Your task to perform on an android device: turn off notifications settings in the gmail app Image 0: 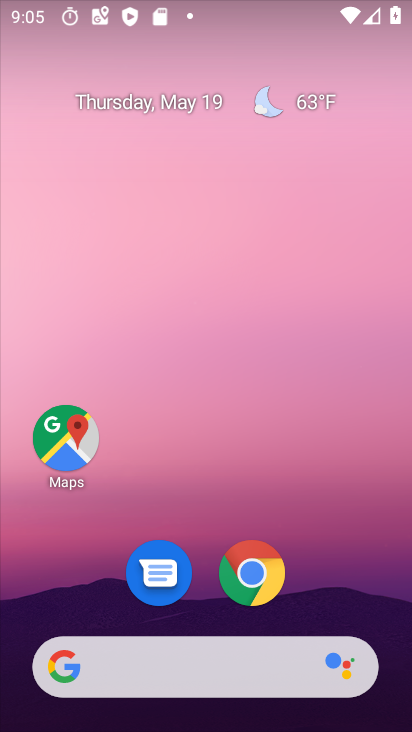
Step 0: drag from (382, 636) to (407, 333)
Your task to perform on an android device: turn off notifications settings in the gmail app Image 1: 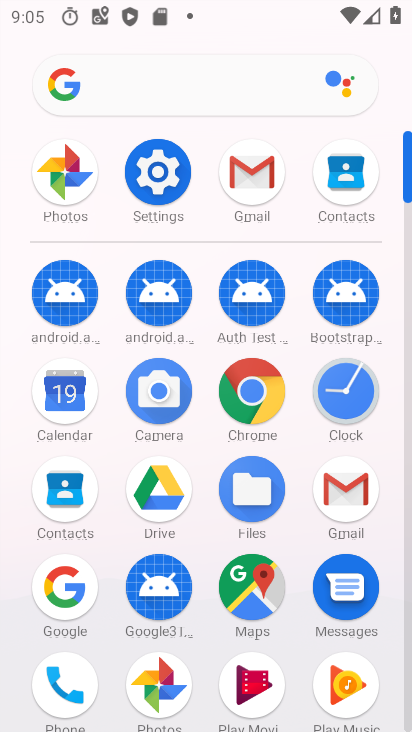
Step 1: click (247, 175)
Your task to perform on an android device: turn off notifications settings in the gmail app Image 2: 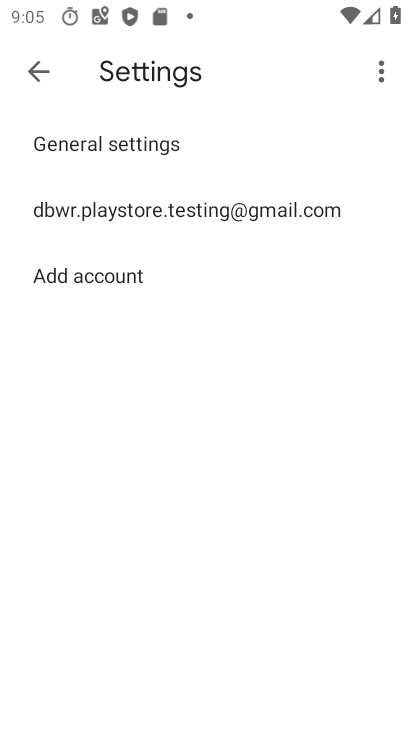
Step 2: click (95, 147)
Your task to perform on an android device: turn off notifications settings in the gmail app Image 3: 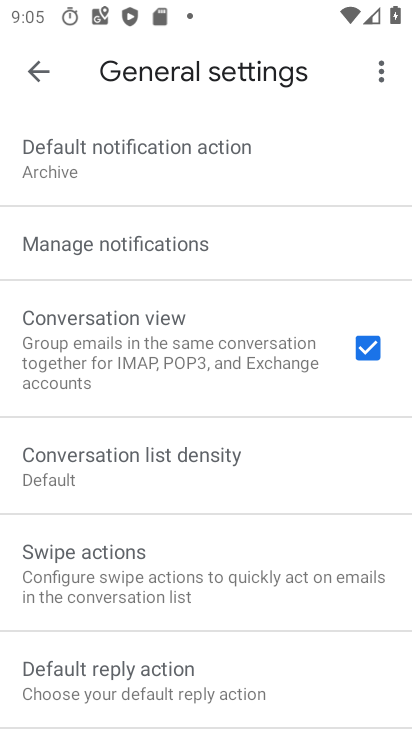
Step 3: click (99, 246)
Your task to perform on an android device: turn off notifications settings in the gmail app Image 4: 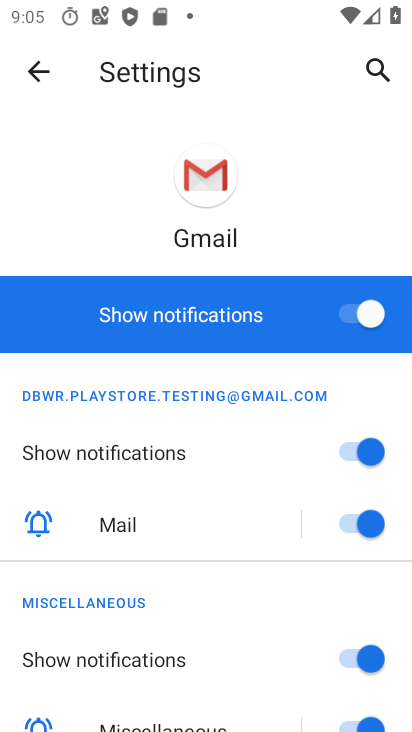
Step 4: click (355, 321)
Your task to perform on an android device: turn off notifications settings in the gmail app Image 5: 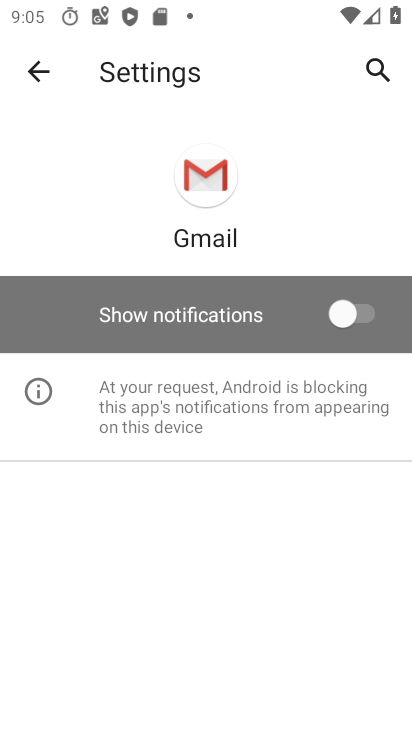
Step 5: task complete